Your task to perform on an android device: Go to settings Image 0: 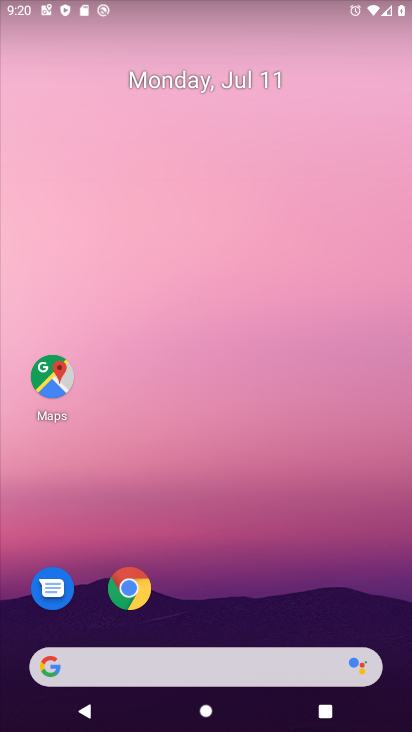
Step 0: drag from (217, 542) to (334, 48)
Your task to perform on an android device: Go to settings Image 1: 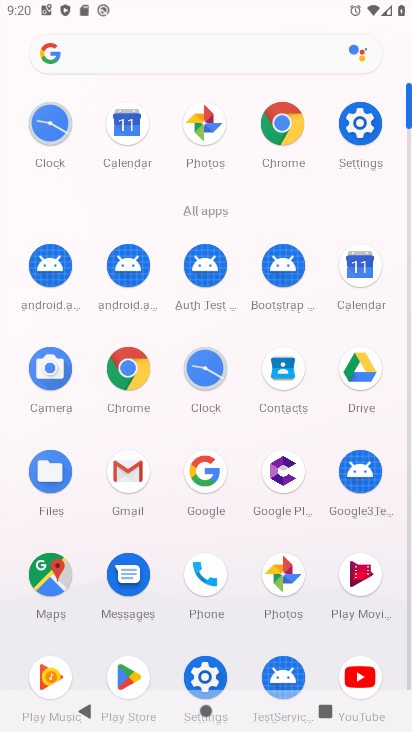
Step 1: click (372, 134)
Your task to perform on an android device: Go to settings Image 2: 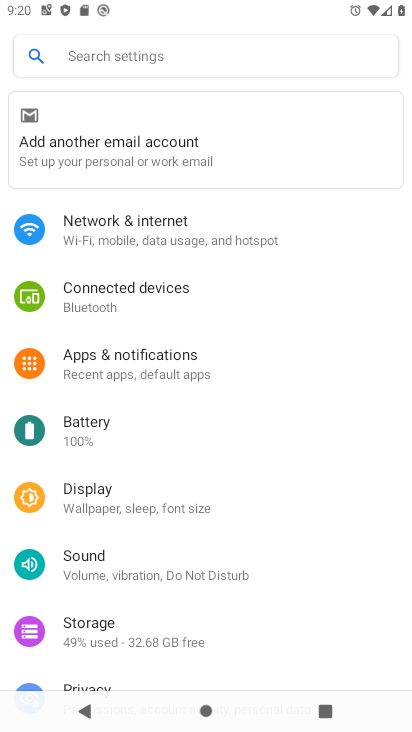
Step 2: task complete